Your task to perform on an android device: Open my contact list Image 0: 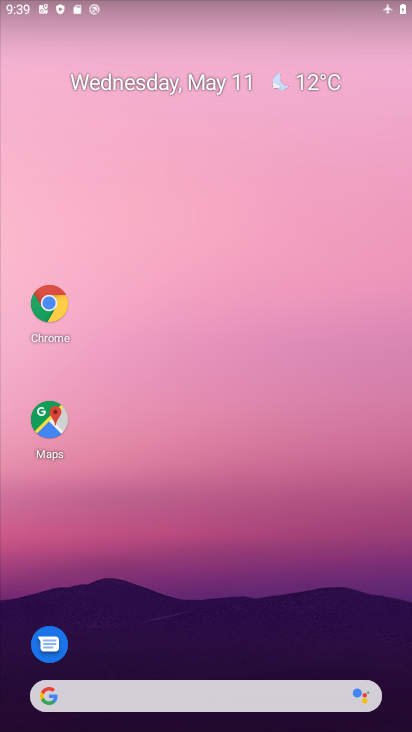
Step 0: drag from (222, 593) to (185, 156)
Your task to perform on an android device: Open my contact list Image 1: 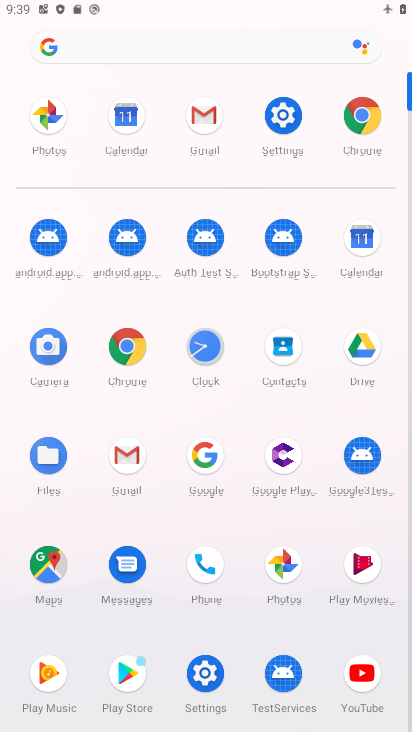
Step 1: click (279, 356)
Your task to perform on an android device: Open my contact list Image 2: 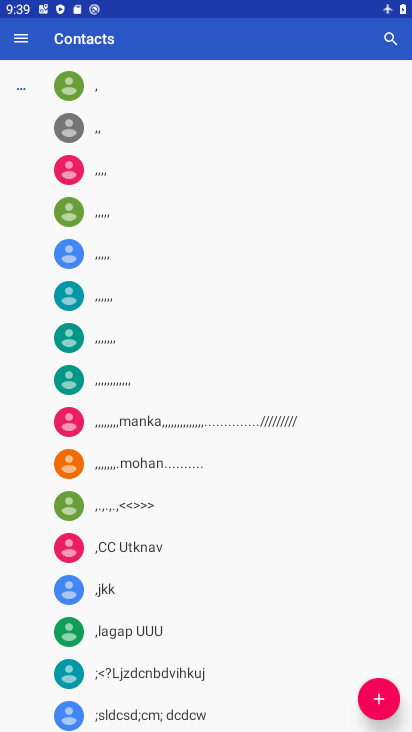
Step 2: task complete